Your task to perform on an android device: Open Reddit.com Image 0: 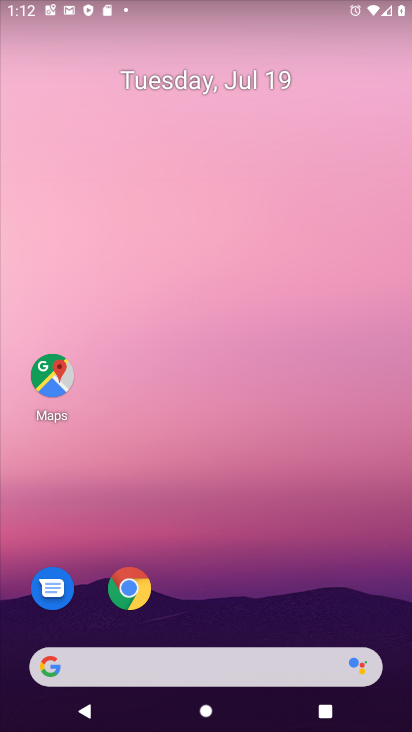
Step 0: drag from (380, 601) to (212, 20)
Your task to perform on an android device: Open Reddit.com Image 1: 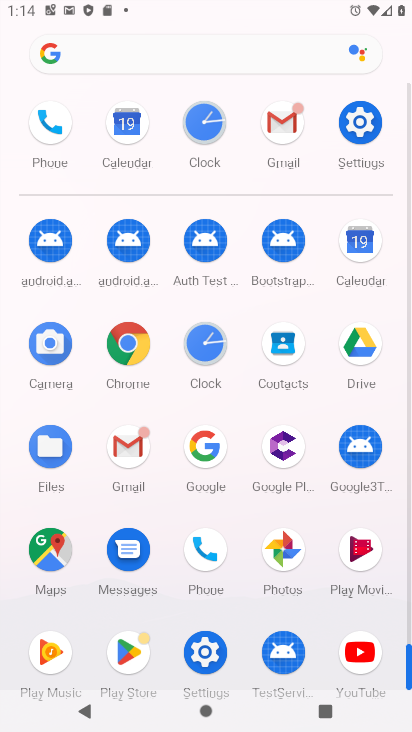
Step 1: click (198, 460)
Your task to perform on an android device: Open Reddit.com Image 2: 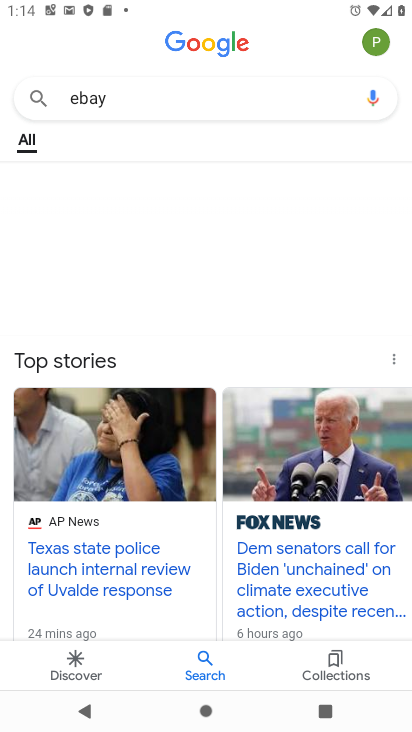
Step 2: press back button
Your task to perform on an android device: Open Reddit.com Image 3: 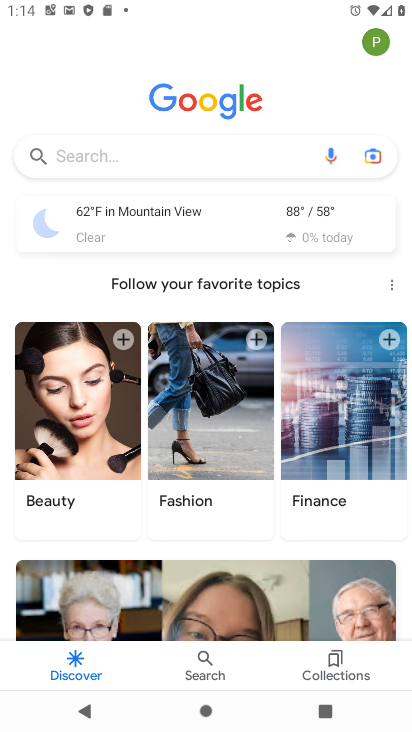
Step 3: click (77, 134)
Your task to perform on an android device: Open Reddit.com Image 4: 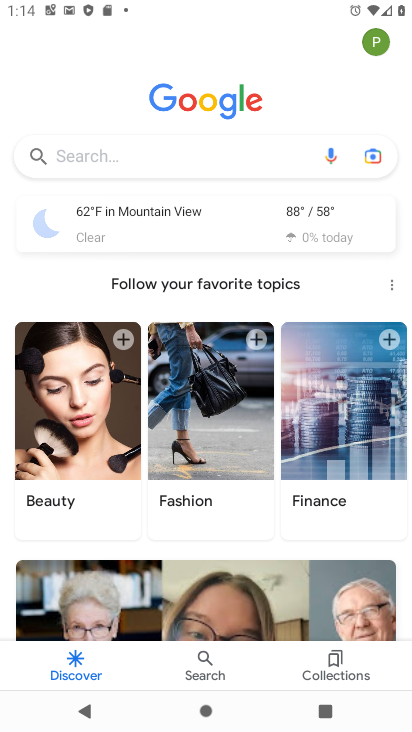
Step 4: click (93, 151)
Your task to perform on an android device: Open Reddit.com Image 5: 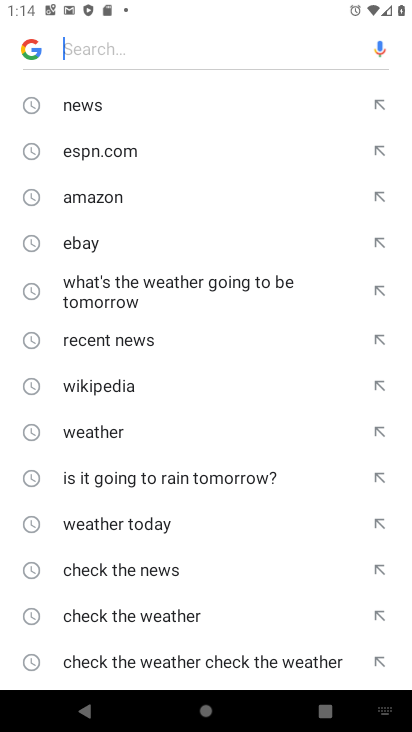
Step 5: type "Reddit.com"
Your task to perform on an android device: Open Reddit.com Image 6: 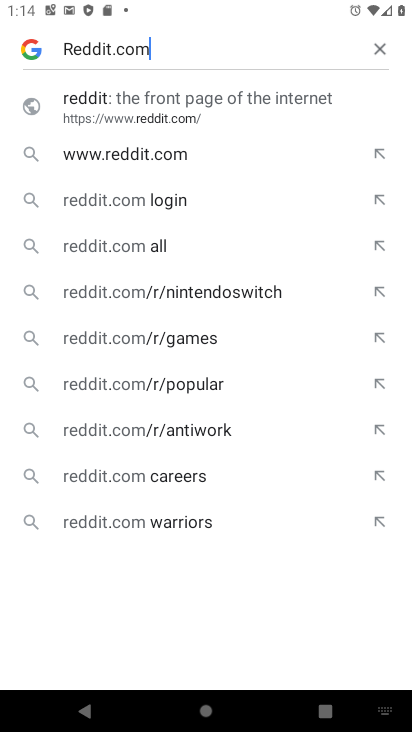
Step 6: click (171, 108)
Your task to perform on an android device: Open Reddit.com Image 7: 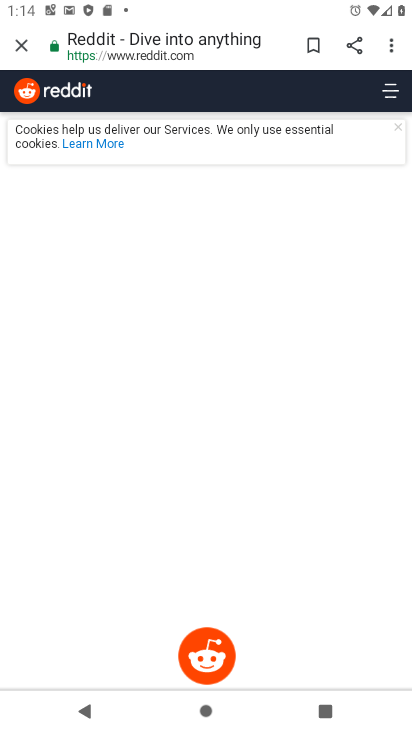
Step 7: task complete